Your task to perform on an android device: Show me popular games on the Play Store Image 0: 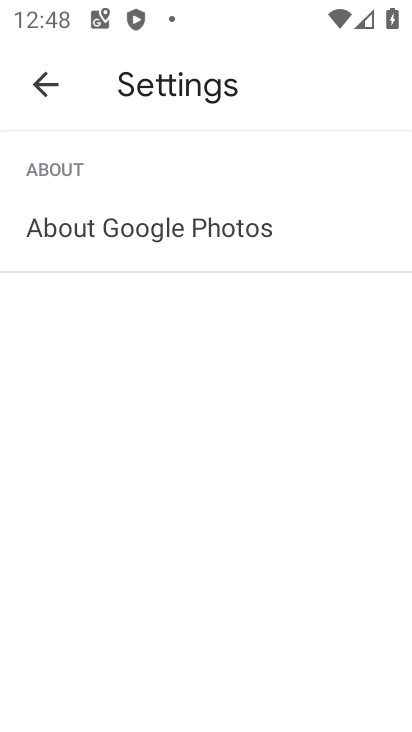
Step 0: press home button
Your task to perform on an android device: Show me popular games on the Play Store Image 1: 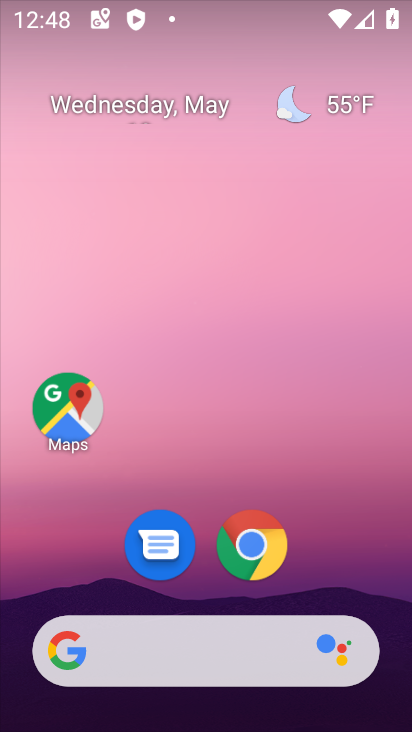
Step 1: drag from (365, 561) to (344, 10)
Your task to perform on an android device: Show me popular games on the Play Store Image 2: 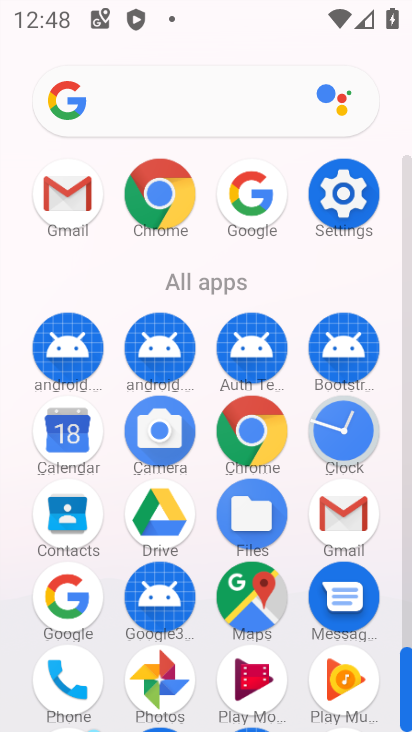
Step 2: drag from (287, 286) to (288, 56)
Your task to perform on an android device: Show me popular games on the Play Store Image 3: 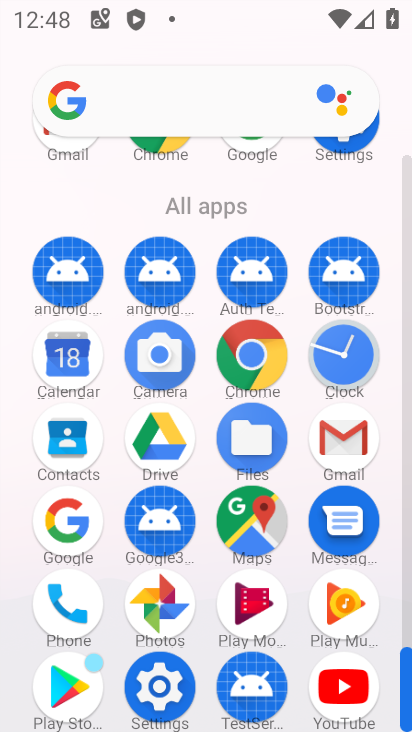
Step 3: click (54, 684)
Your task to perform on an android device: Show me popular games on the Play Store Image 4: 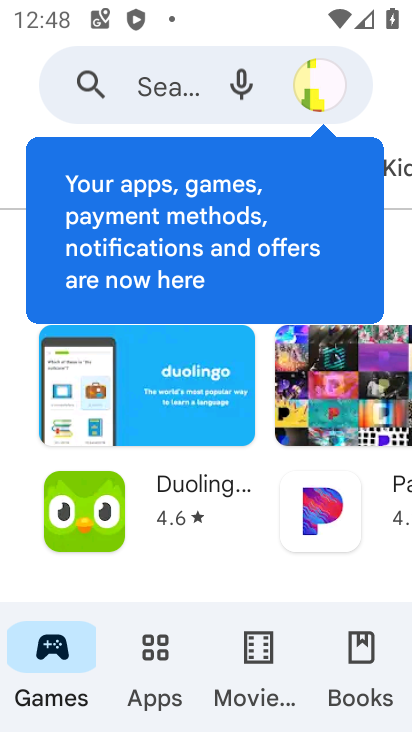
Step 4: click (167, 639)
Your task to perform on an android device: Show me popular games on the Play Store Image 5: 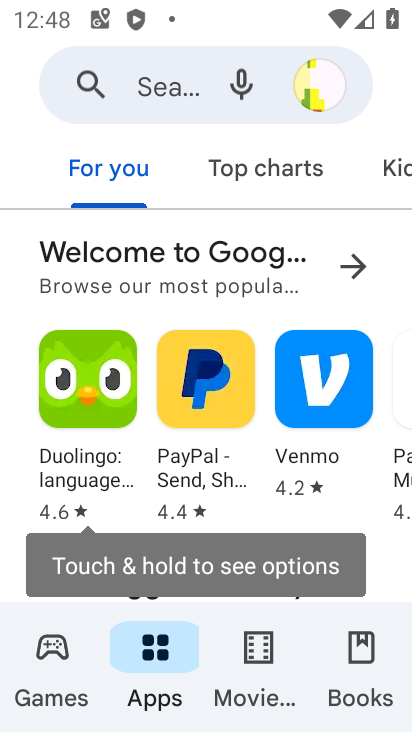
Step 5: click (244, 192)
Your task to perform on an android device: Show me popular games on the Play Store Image 6: 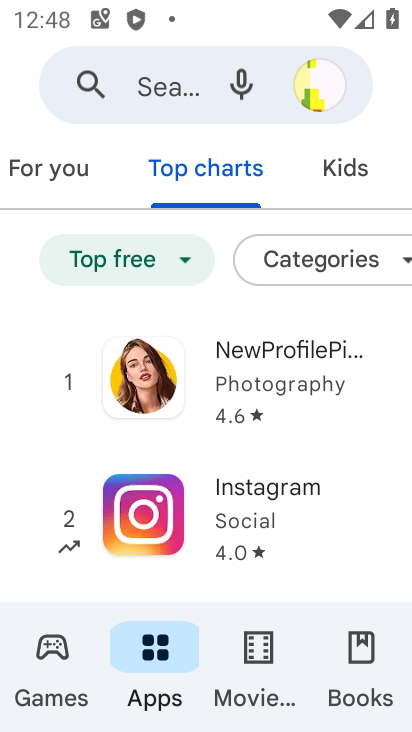
Step 6: task complete